Your task to perform on an android device: open app "DuckDuckGo Privacy Browser" (install if not already installed) Image 0: 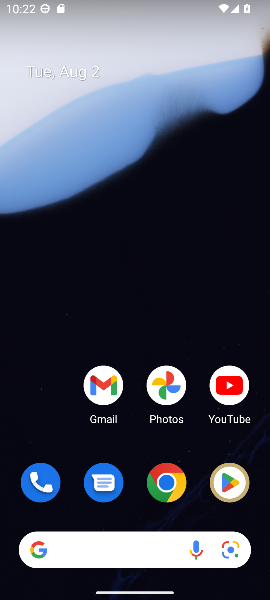
Step 0: drag from (154, 506) to (201, 136)
Your task to perform on an android device: open app "DuckDuckGo Privacy Browser" (install if not already installed) Image 1: 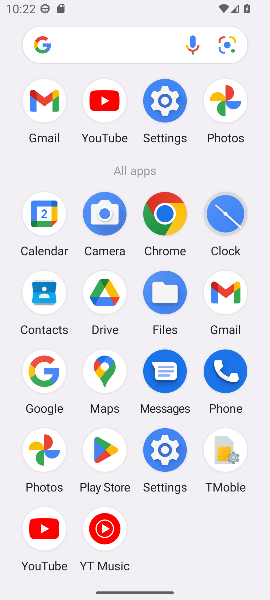
Step 1: click (116, 458)
Your task to perform on an android device: open app "DuckDuckGo Privacy Browser" (install if not already installed) Image 2: 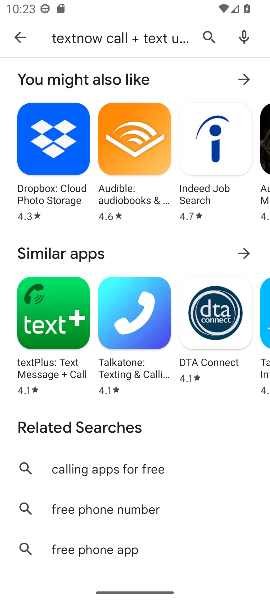
Step 2: click (17, 34)
Your task to perform on an android device: open app "DuckDuckGo Privacy Browser" (install if not already installed) Image 3: 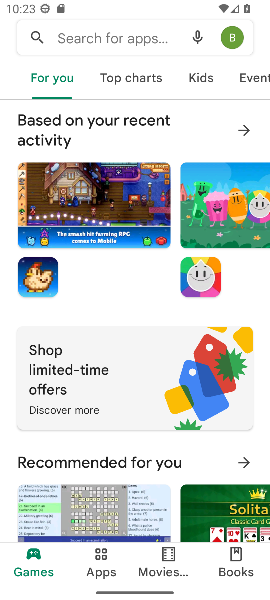
Step 3: click (118, 42)
Your task to perform on an android device: open app "DuckDuckGo Privacy Browser" (install if not already installed) Image 4: 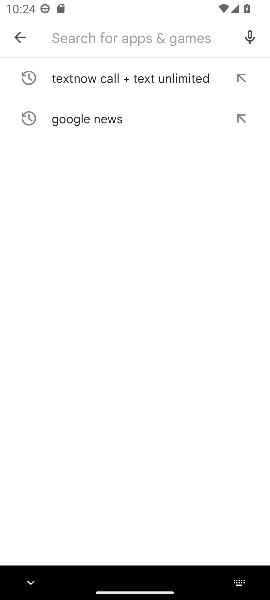
Step 4: type "DuckDuckGo Privacy Browser"
Your task to perform on an android device: open app "DuckDuckGo Privacy Browser" (install if not already installed) Image 5: 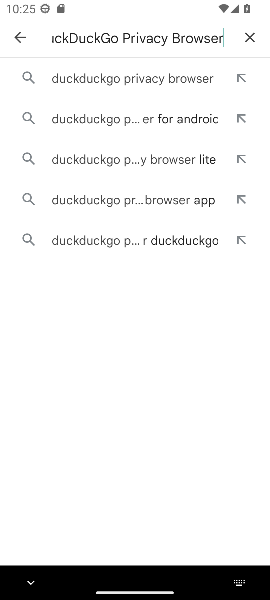
Step 5: click (126, 76)
Your task to perform on an android device: open app "DuckDuckGo Privacy Browser" (install if not already installed) Image 6: 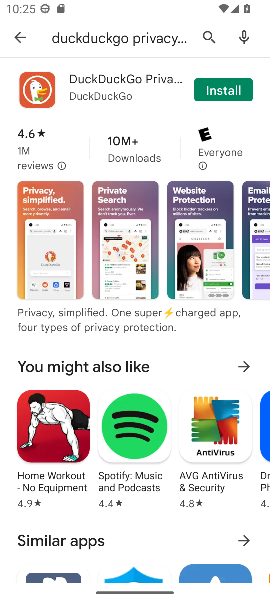
Step 6: click (237, 92)
Your task to perform on an android device: open app "DuckDuckGo Privacy Browser" (install if not already installed) Image 7: 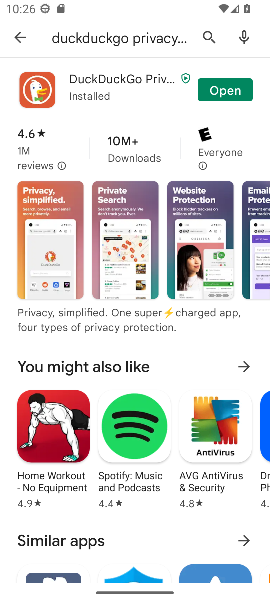
Step 7: click (234, 82)
Your task to perform on an android device: open app "DuckDuckGo Privacy Browser" (install if not already installed) Image 8: 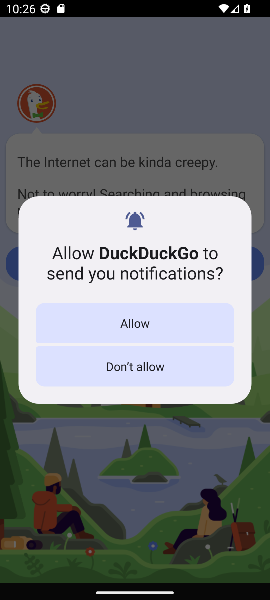
Step 8: click (102, 307)
Your task to perform on an android device: open app "DuckDuckGo Privacy Browser" (install if not already installed) Image 9: 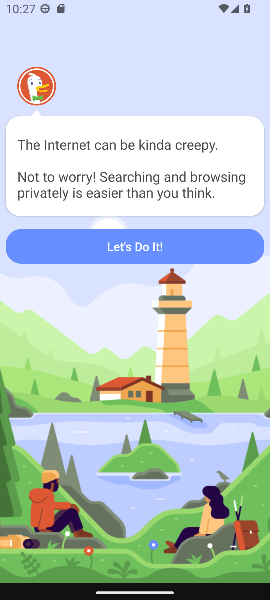
Step 9: task complete